Your task to perform on an android device: open app "YouTube Kids" (install if not already installed), go to login, and select forgot password Image 0: 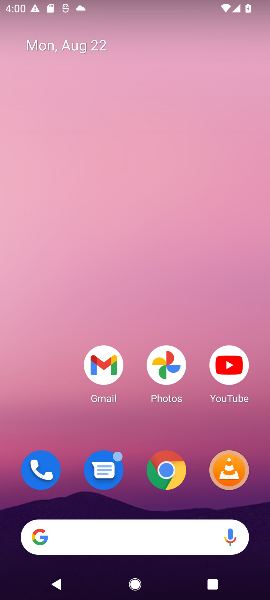
Step 0: drag from (83, 507) to (70, 203)
Your task to perform on an android device: open app "YouTube Kids" (install if not already installed), go to login, and select forgot password Image 1: 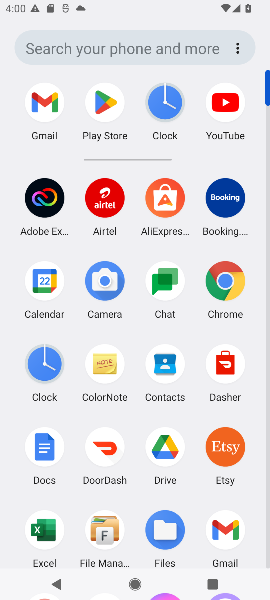
Step 1: drag from (136, 501) to (132, 568)
Your task to perform on an android device: open app "YouTube Kids" (install if not already installed), go to login, and select forgot password Image 2: 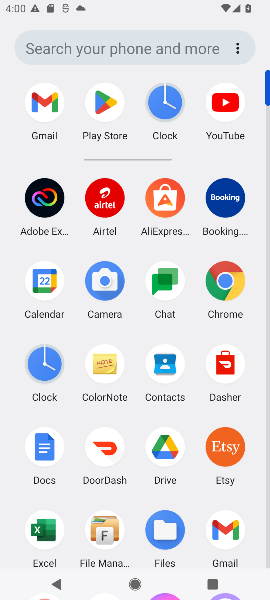
Step 2: click (106, 103)
Your task to perform on an android device: open app "YouTube Kids" (install if not already installed), go to login, and select forgot password Image 3: 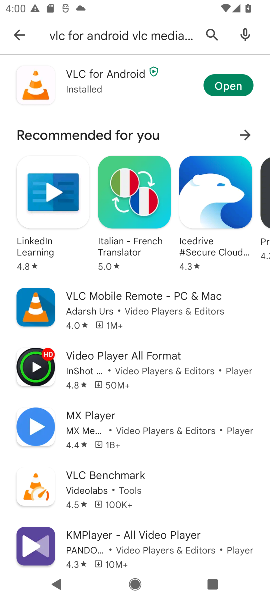
Step 3: click (22, 36)
Your task to perform on an android device: open app "YouTube Kids" (install if not already installed), go to login, and select forgot password Image 4: 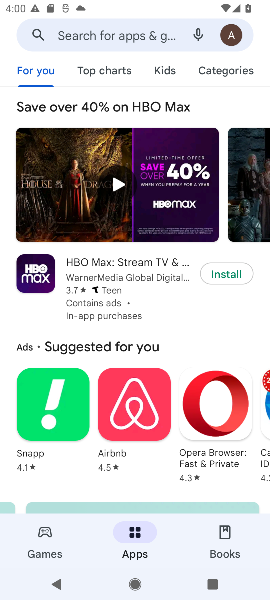
Step 4: click (99, 36)
Your task to perform on an android device: open app "YouTube Kids" (install if not already installed), go to login, and select forgot password Image 5: 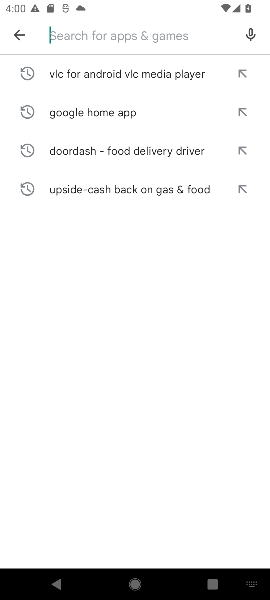
Step 5: type "YouTube Kids "
Your task to perform on an android device: open app "YouTube Kids" (install if not already installed), go to login, and select forgot password Image 6: 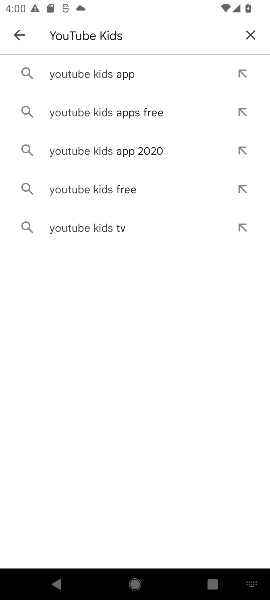
Step 6: click (73, 72)
Your task to perform on an android device: open app "YouTube Kids" (install if not already installed), go to login, and select forgot password Image 7: 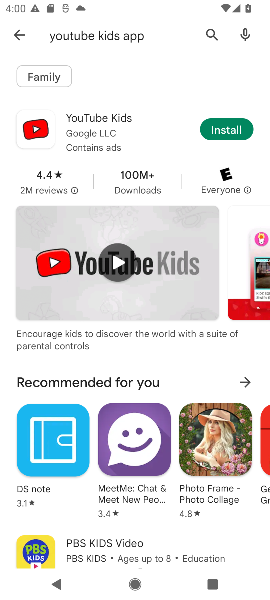
Step 7: click (217, 129)
Your task to perform on an android device: open app "YouTube Kids" (install if not already installed), go to login, and select forgot password Image 8: 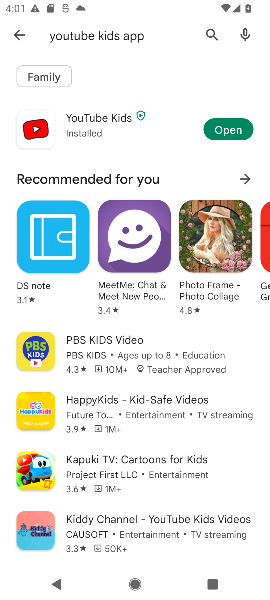
Step 8: click (233, 125)
Your task to perform on an android device: open app "YouTube Kids" (install if not already installed), go to login, and select forgot password Image 9: 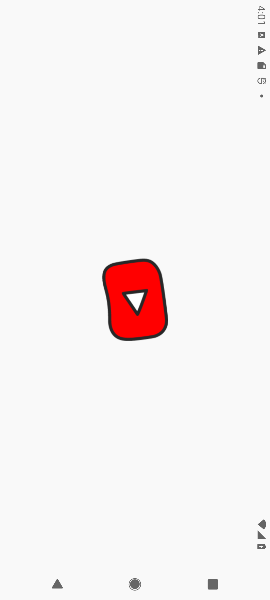
Step 9: task complete